Your task to perform on an android device: turn off notifications in google photos Image 0: 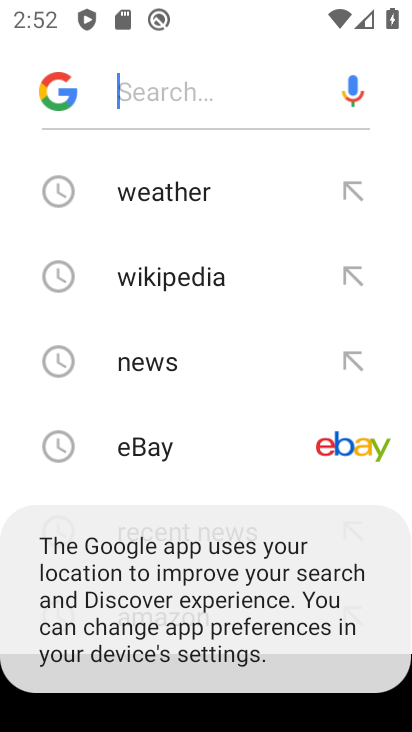
Step 0: press back button
Your task to perform on an android device: turn off notifications in google photos Image 1: 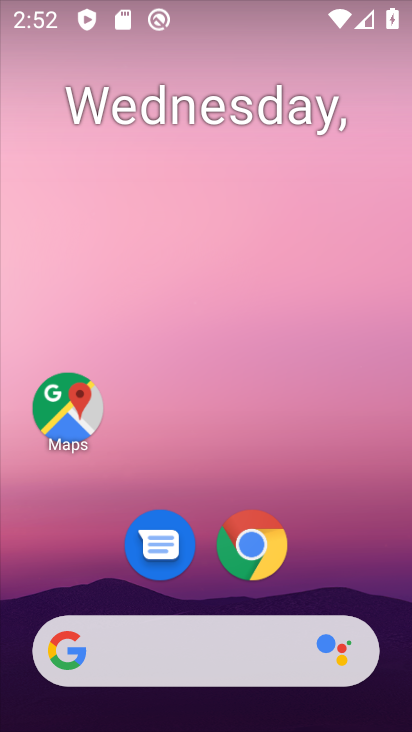
Step 1: drag from (67, 605) to (188, 114)
Your task to perform on an android device: turn off notifications in google photos Image 2: 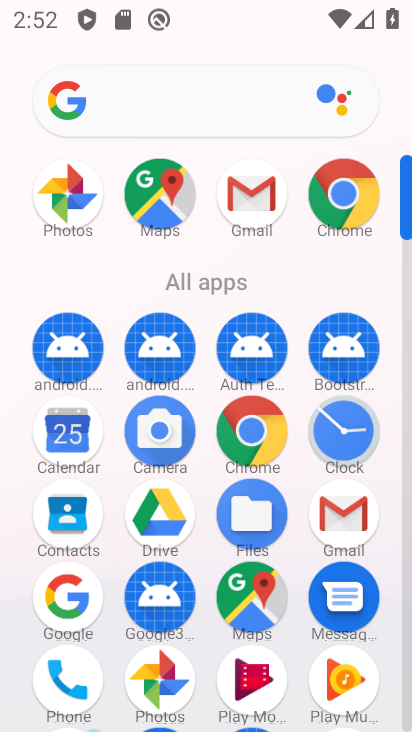
Step 2: drag from (132, 611) to (185, 433)
Your task to perform on an android device: turn off notifications in google photos Image 3: 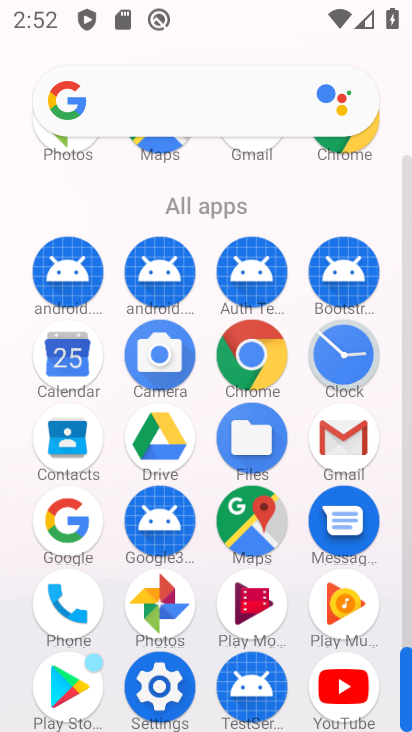
Step 3: click (157, 594)
Your task to perform on an android device: turn off notifications in google photos Image 4: 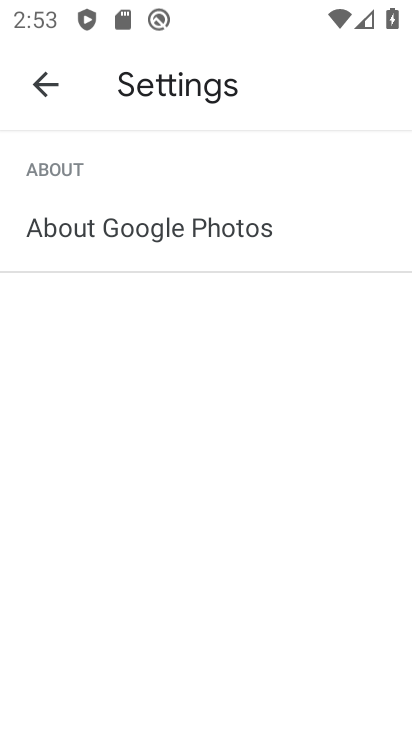
Step 4: click (57, 105)
Your task to perform on an android device: turn off notifications in google photos Image 5: 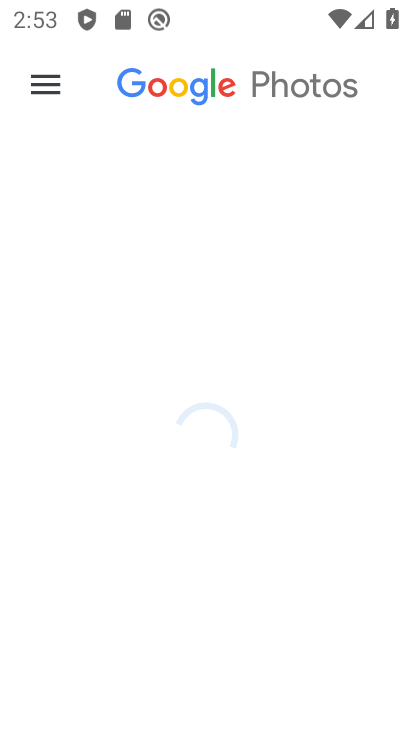
Step 5: click (57, 104)
Your task to perform on an android device: turn off notifications in google photos Image 6: 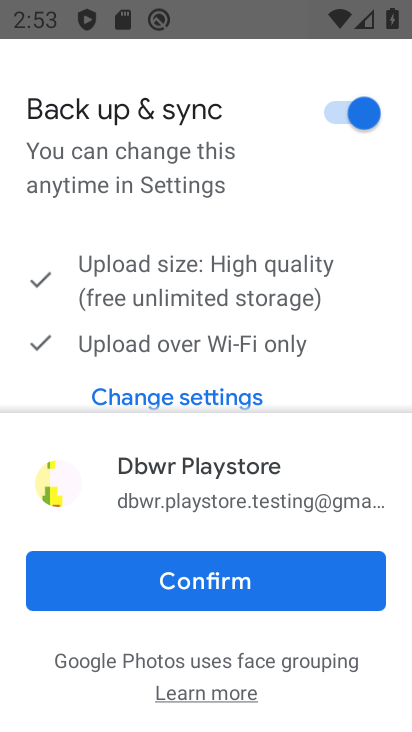
Step 6: click (214, 582)
Your task to perform on an android device: turn off notifications in google photos Image 7: 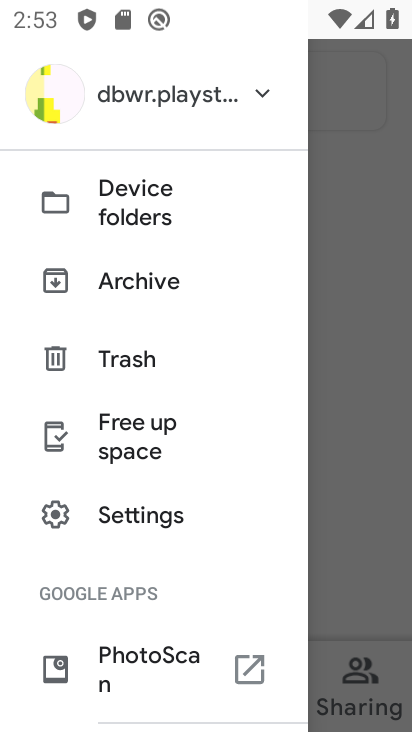
Step 7: click (152, 532)
Your task to perform on an android device: turn off notifications in google photos Image 8: 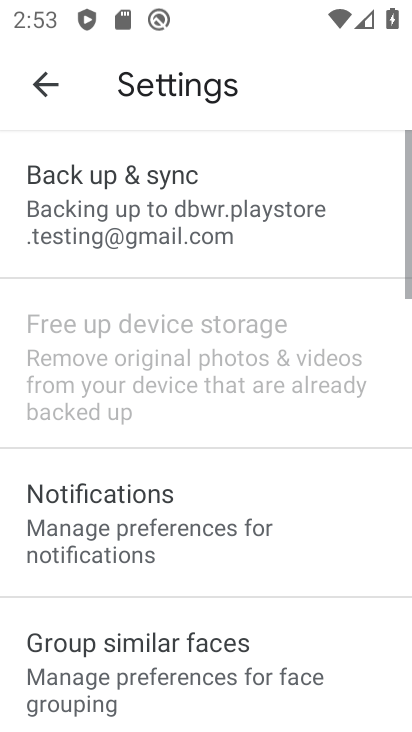
Step 8: drag from (152, 533) to (198, 340)
Your task to perform on an android device: turn off notifications in google photos Image 9: 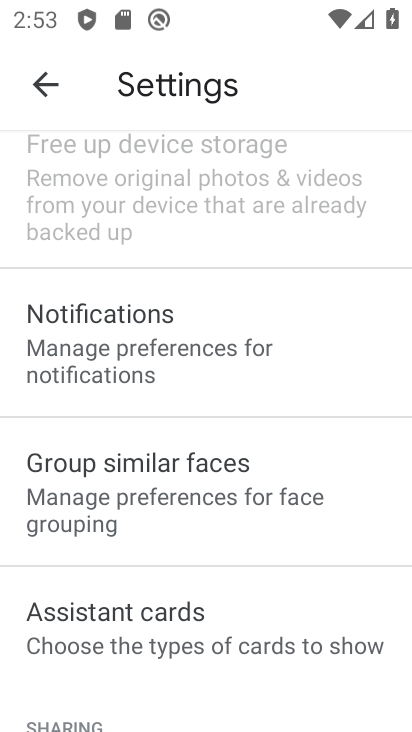
Step 9: click (190, 366)
Your task to perform on an android device: turn off notifications in google photos Image 10: 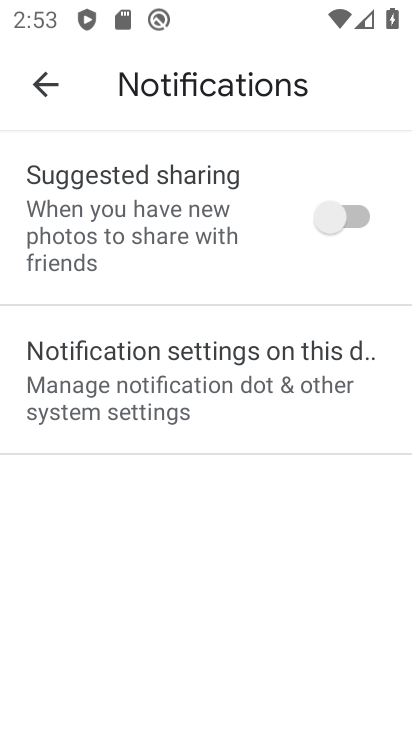
Step 10: click (243, 389)
Your task to perform on an android device: turn off notifications in google photos Image 11: 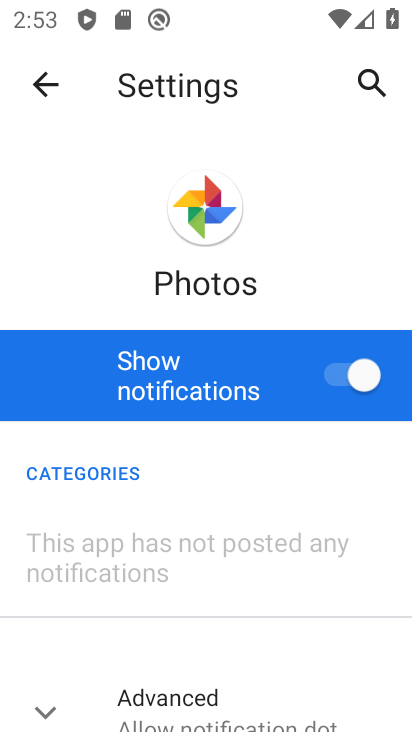
Step 11: click (335, 369)
Your task to perform on an android device: turn off notifications in google photos Image 12: 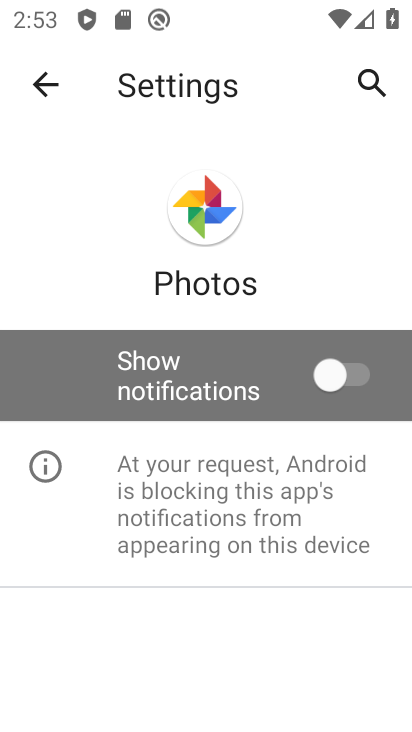
Step 12: task complete